Your task to perform on an android device: Open Google Maps and go to "Timeline" Image 0: 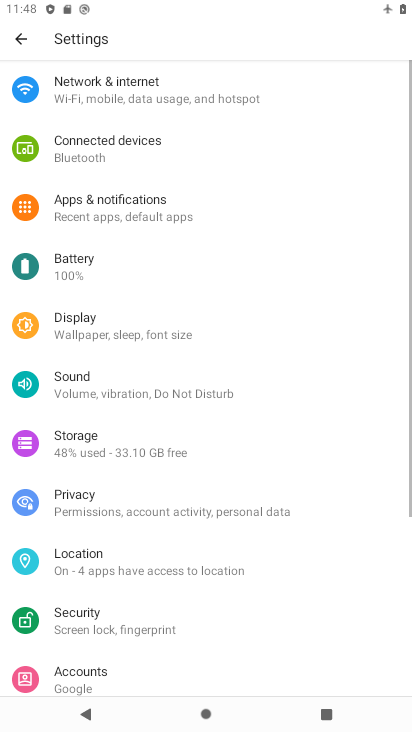
Step 0: press home button
Your task to perform on an android device: Open Google Maps and go to "Timeline" Image 1: 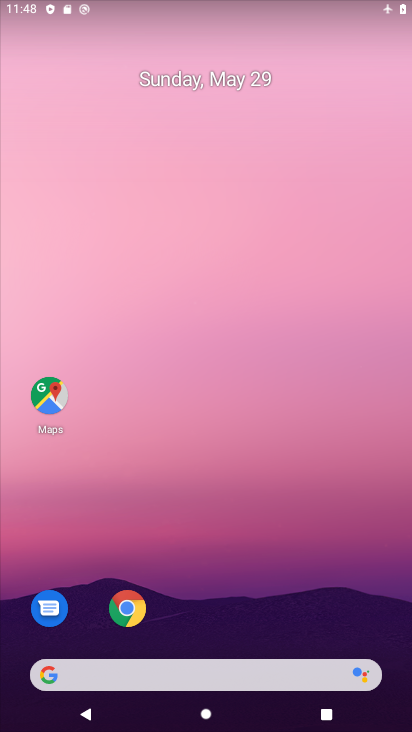
Step 1: drag from (216, 638) to (218, 23)
Your task to perform on an android device: Open Google Maps and go to "Timeline" Image 2: 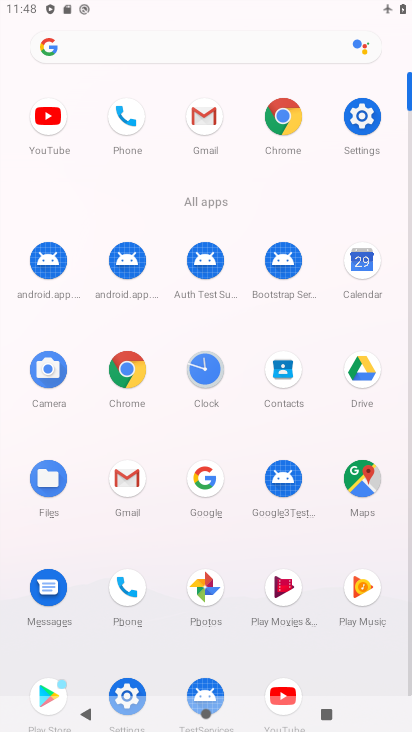
Step 2: click (355, 467)
Your task to perform on an android device: Open Google Maps and go to "Timeline" Image 3: 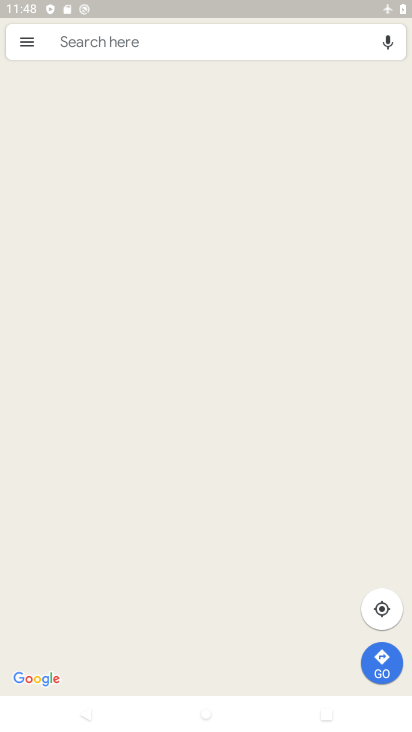
Step 3: click (18, 38)
Your task to perform on an android device: Open Google Maps and go to "Timeline" Image 4: 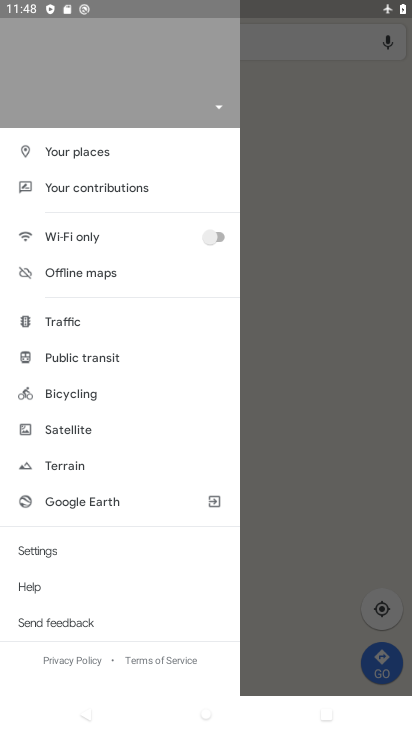
Step 4: task complete